Your task to perform on an android device: Open accessibility settings Image 0: 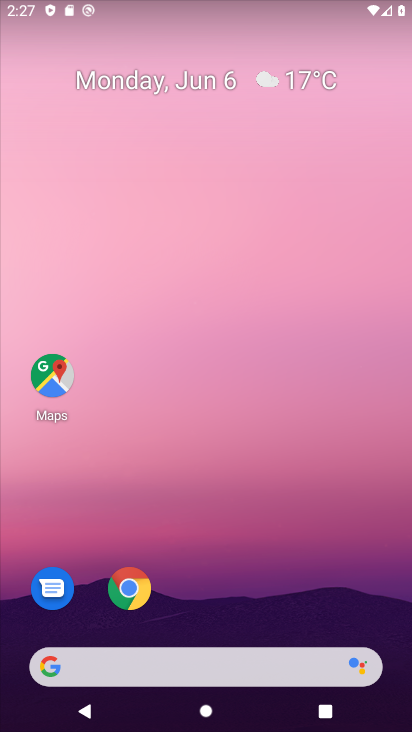
Step 0: drag from (216, 666) to (270, 105)
Your task to perform on an android device: Open accessibility settings Image 1: 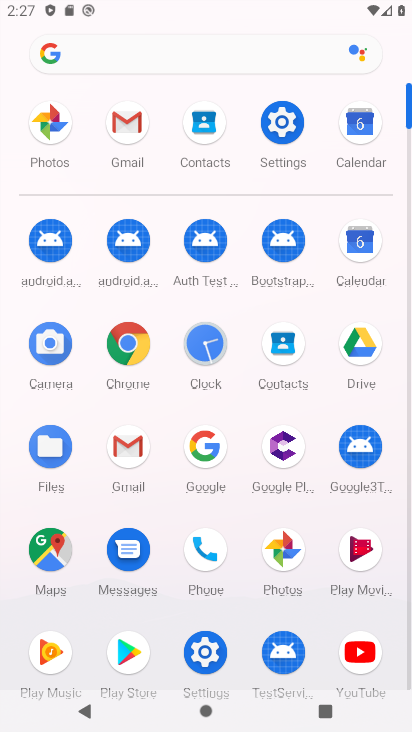
Step 1: click (213, 659)
Your task to perform on an android device: Open accessibility settings Image 2: 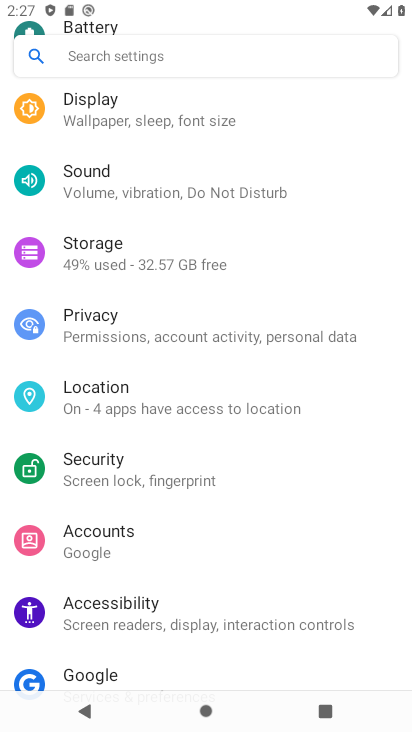
Step 2: click (165, 609)
Your task to perform on an android device: Open accessibility settings Image 3: 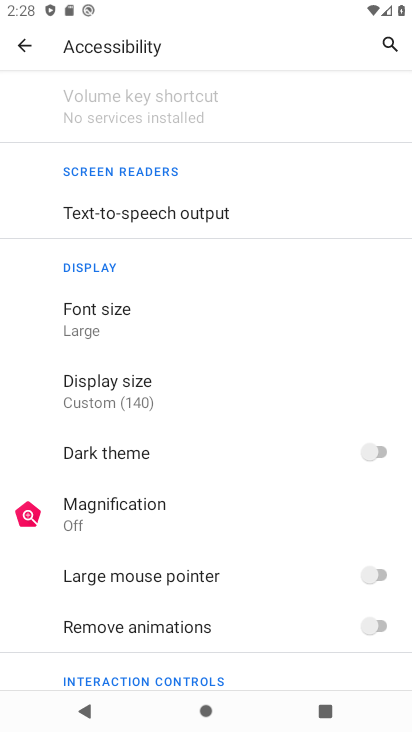
Step 3: task complete